Your task to perform on an android device: Show me productivity apps on the Play Store Image 0: 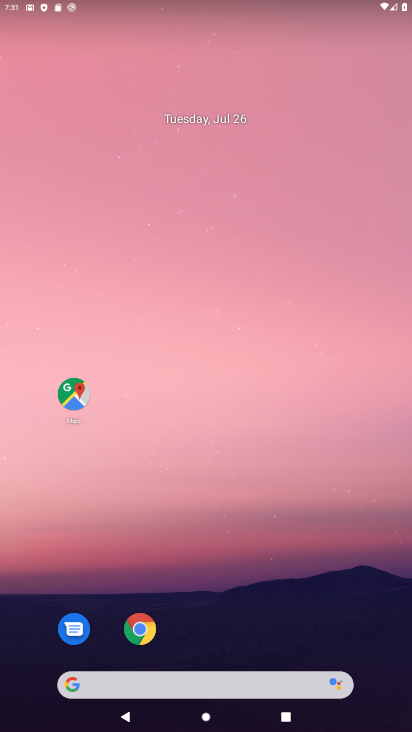
Step 0: drag from (204, 639) to (199, 17)
Your task to perform on an android device: Show me productivity apps on the Play Store Image 1: 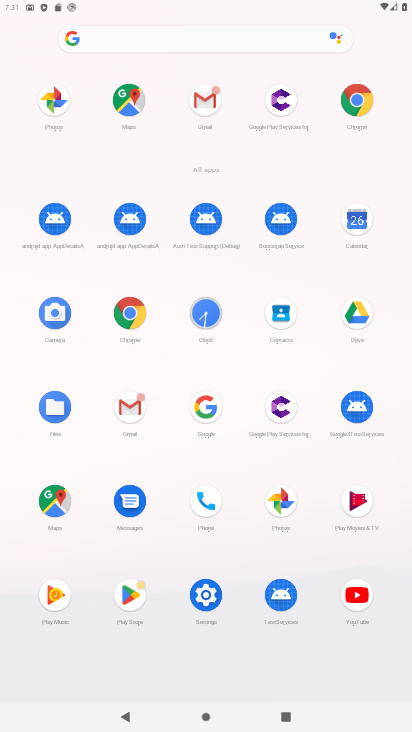
Step 1: click (127, 589)
Your task to perform on an android device: Show me productivity apps on the Play Store Image 2: 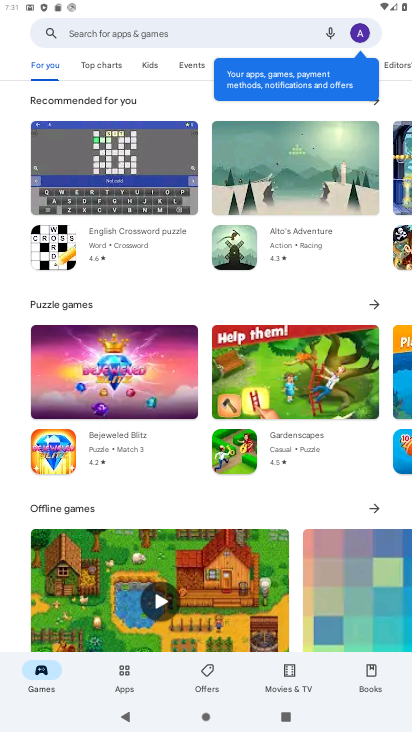
Step 2: click (124, 671)
Your task to perform on an android device: Show me productivity apps on the Play Store Image 3: 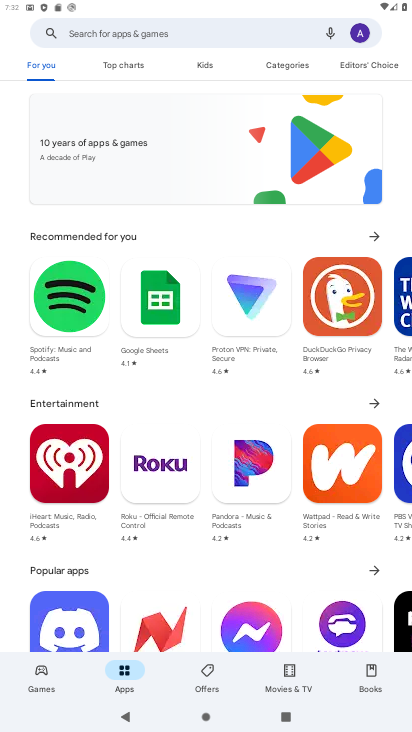
Step 3: click (105, 30)
Your task to perform on an android device: Show me productivity apps on the Play Store Image 4: 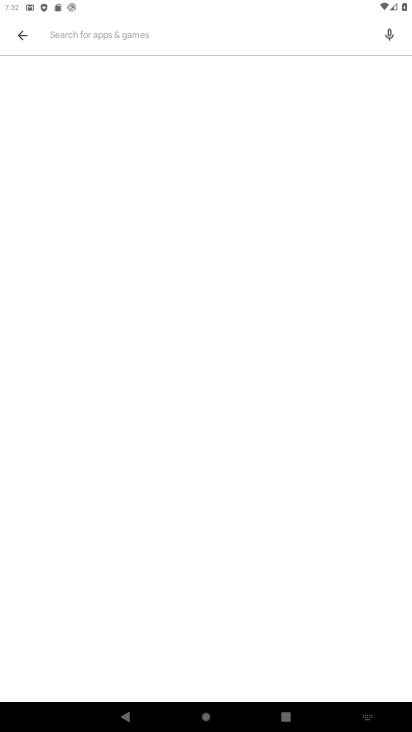
Step 4: click (14, 36)
Your task to perform on an android device: Show me productivity apps on the Play Store Image 5: 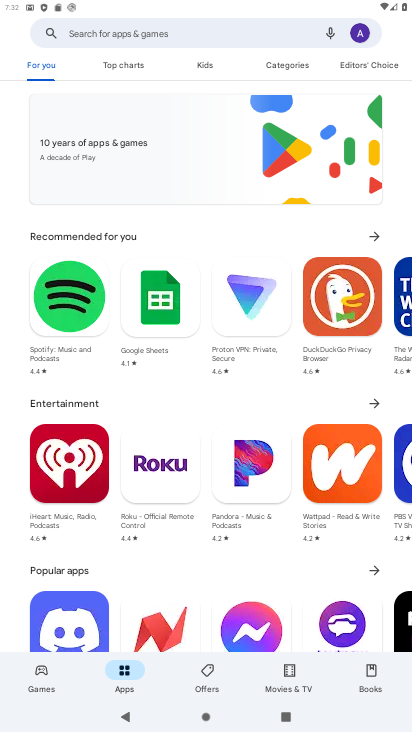
Step 5: click (286, 59)
Your task to perform on an android device: Show me productivity apps on the Play Store Image 6: 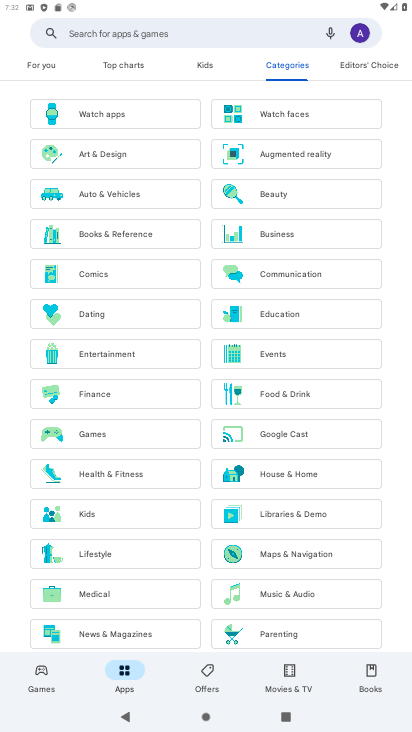
Step 6: drag from (161, 609) to (161, 135)
Your task to perform on an android device: Show me productivity apps on the Play Store Image 7: 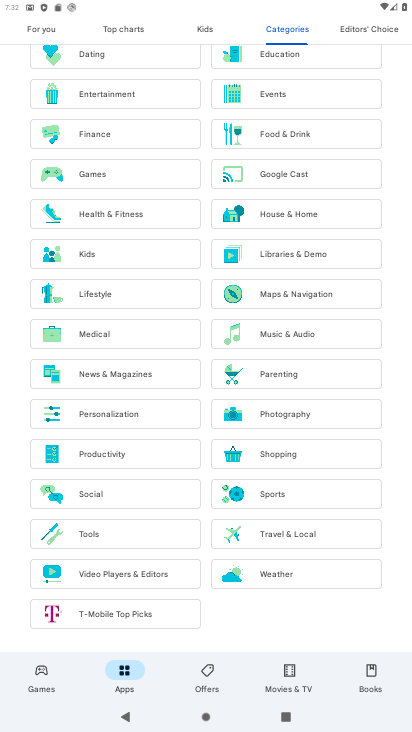
Step 7: click (135, 453)
Your task to perform on an android device: Show me productivity apps on the Play Store Image 8: 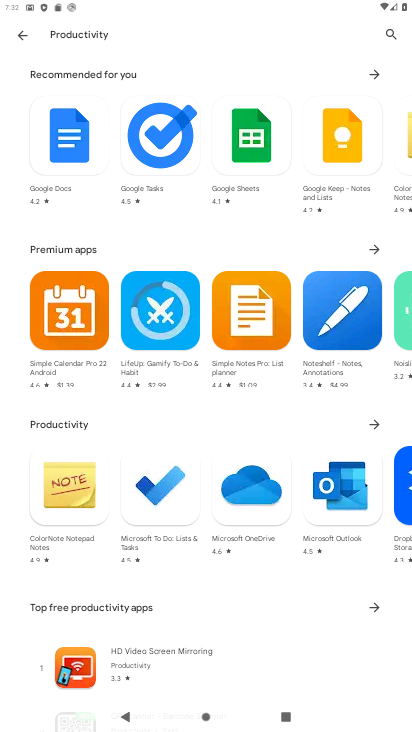
Step 8: click (377, 422)
Your task to perform on an android device: Show me productivity apps on the Play Store Image 9: 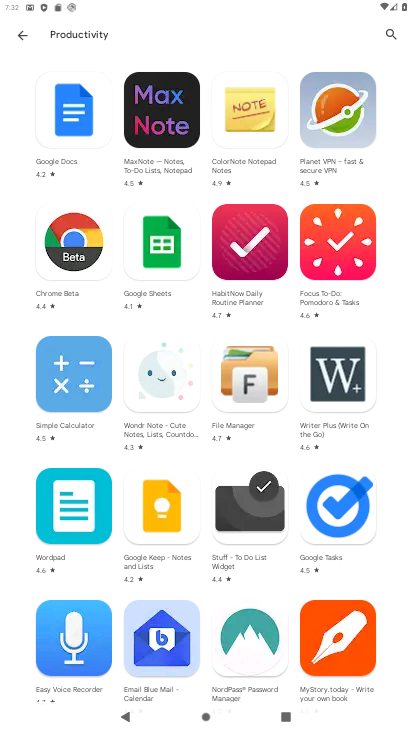
Step 9: task complete